Your task to perform on an android device: Search for "apple airpods" on amazon, select the first entry, and add it to the cart. Image 0: 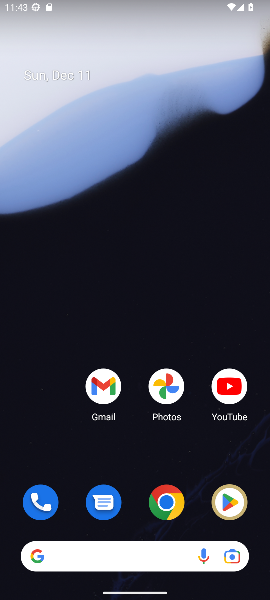
Step 0: click (113, 557)
Your task to perform on an android device: Search for "apple airpods" on amazon, select the first entry, and add it to the cart. Image 1: 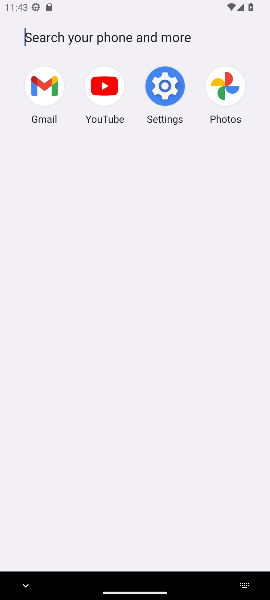
Step 1: type "amazon"
Your task to perform on an android device: Search for "apple airpods" on amazon, select the first entry, and add it to the cart. Image 2: 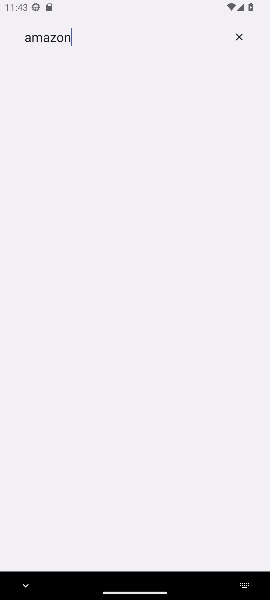
Step 2: press home button
Your task to perform on an android device: Search for "apple airpods" on amazon, select the first entry, and add it to the cart. Image 3: 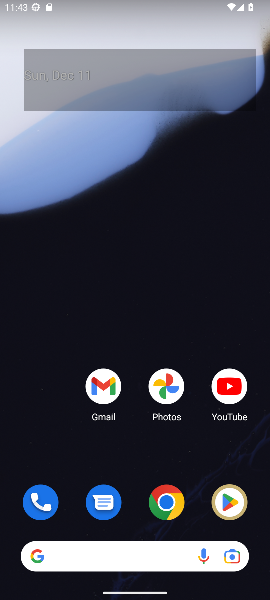
Step 3: click (120, 558)
Your task to perform on an android device: Search for "apple airpods" on amazon, select the first entry, and add it to the cart. Image 4: 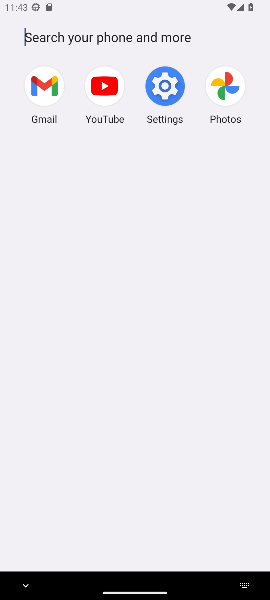
Step 4: press home button
Your task to perform on an android device: Search for "apple airpods" on amazon, select the first entry, and add it to the cart. Image 5: 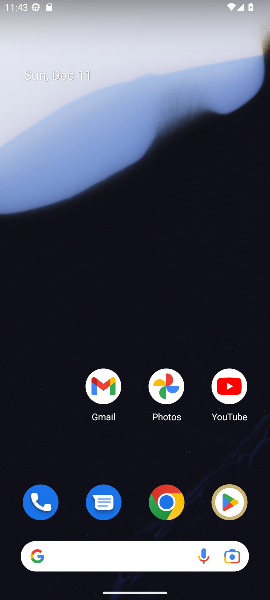
Step 5: click (166, 515)
Your task to perform on an android device: Search for "apple airpods" on amazon, select the first entry, and add it to the cart. Image 6: 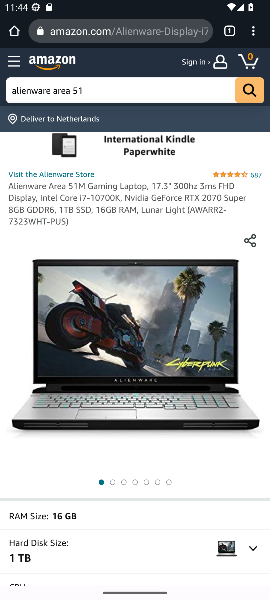
Step 6: click (173, 101)
Your task to perform on an android device: Search for "apple airpods" on amazon, select the first entry, and add it to the cart. Image 7: 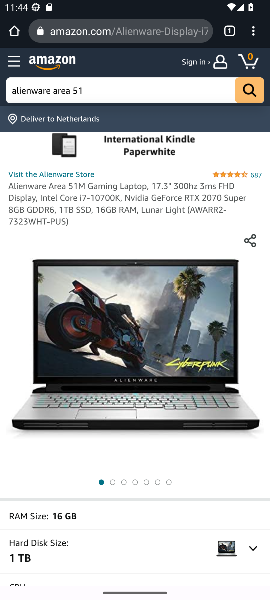
Step 7: click (173, 101)
Your task to perform on an android device: Search for "apple airpods" on amazon, select the first entry, and add it to the cart. Image 8: 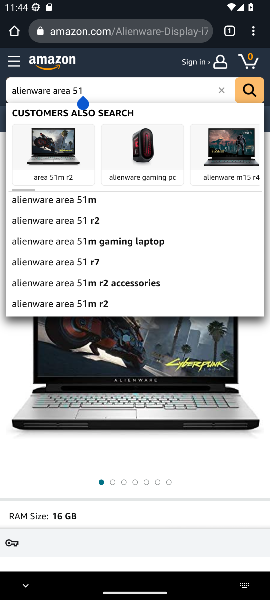
Step 8: click (221, 96)
Your task to perform on an android device: Search for "apple airpods" on amazon, select the first entry, and add it to the cart. Image 9: 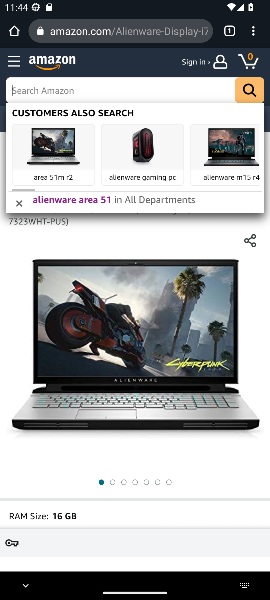
Step 9: type "apple "
Your task to perform on an android device: Search for "apple airpods" on amazon, select the first entry, and add it to the cart. Image 10: 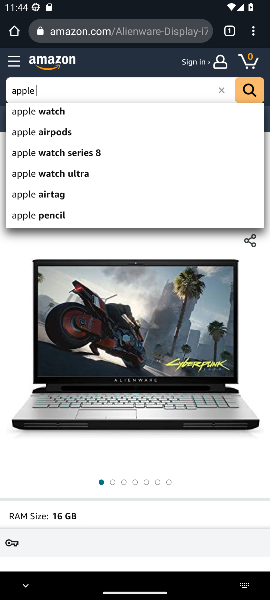
Step 10: click (84, 133)
Your task to perform on an android device: Search for "apple airpods" on amazon, select the first entry, and add it to the cart. Image 11: 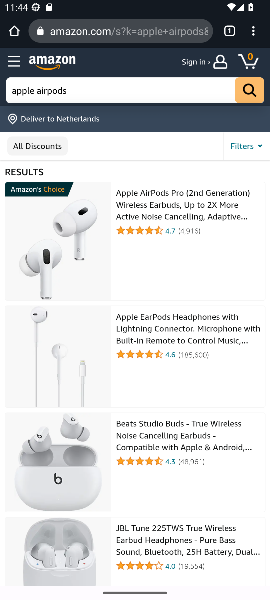
Step 11: click (151, 215)
Your task to perform on an android device: Search for "apple airpods" on amazon, select the first entry, and add it to the cart. Image 12: 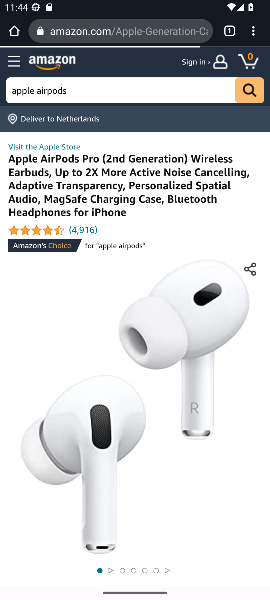
Step 12: drag from (162, 489) to (135, 73)
Your task to perform on an android device: Search for "apple airpods" on amazon, select the first entry, and add it to the cart. Image 13: 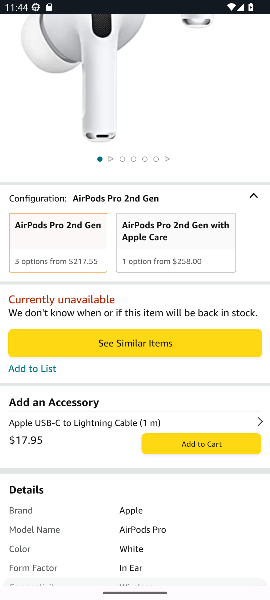
Step 13: click (203, 435)
Your task to perform on an android device: Search for "apple airpods" on amazon, select the first entry, and add it to the cart. Image 14: 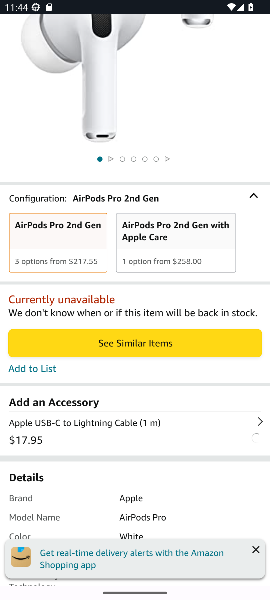
Step 14: task complete